Your task to perform on an android device: toggle airplane mode Image 0: 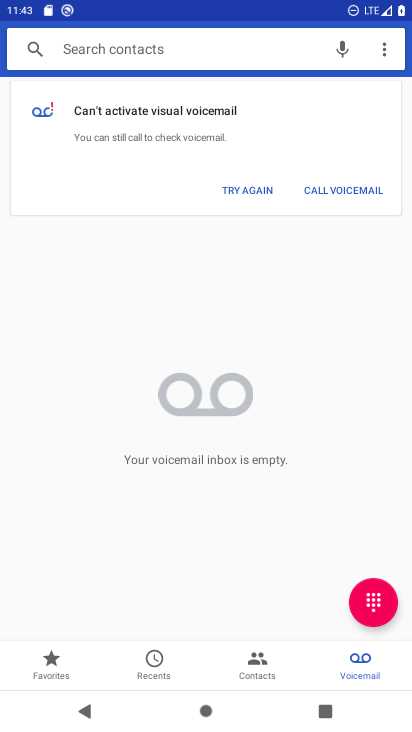
Step 0: press home button
Your task to perform on an android device: toggle airplane mode Image 1: 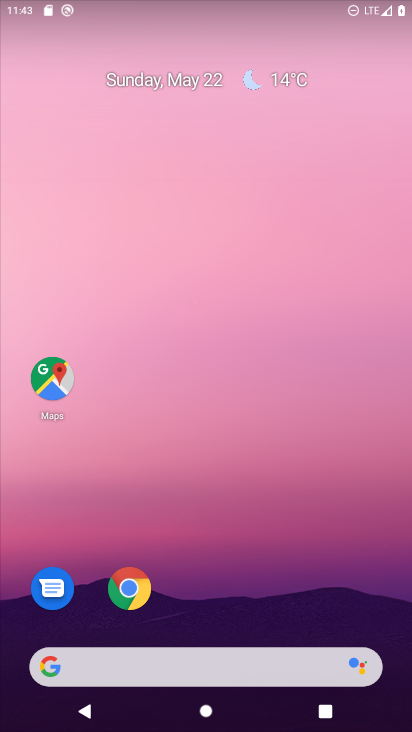
Step 1: drag from (215, 620) to (235, 262)
Your task to perform on an android device: toggle airplane mode Image 2: 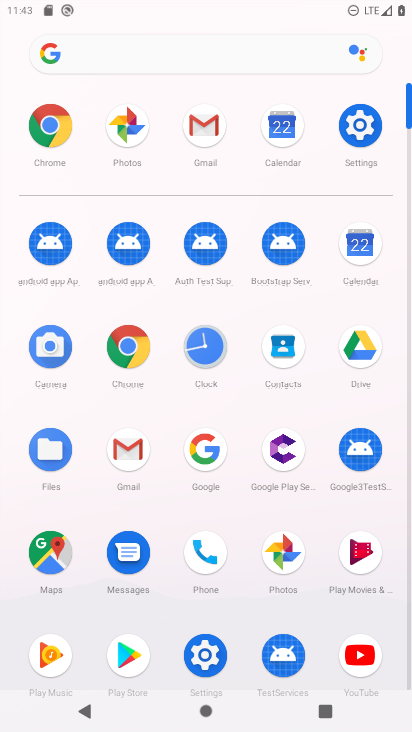
Step 2: click (363, 140)
Your task to perform on an android device: toggle airplane mode Image 3: 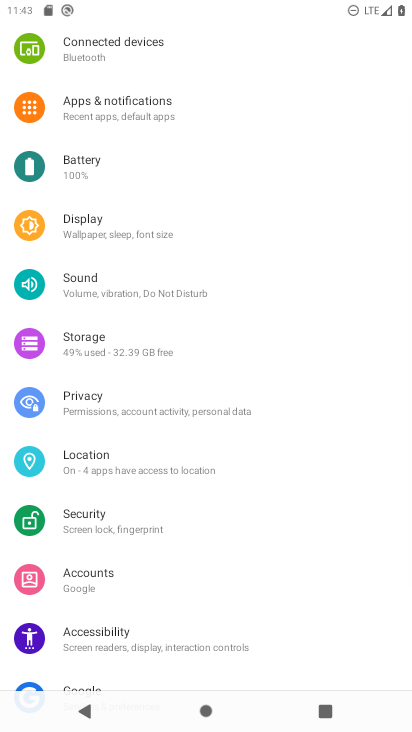
Step 3: drag from (149, 90) to (167, 589)
Your task to perform on an android device: toggle airplane mode Image 4: 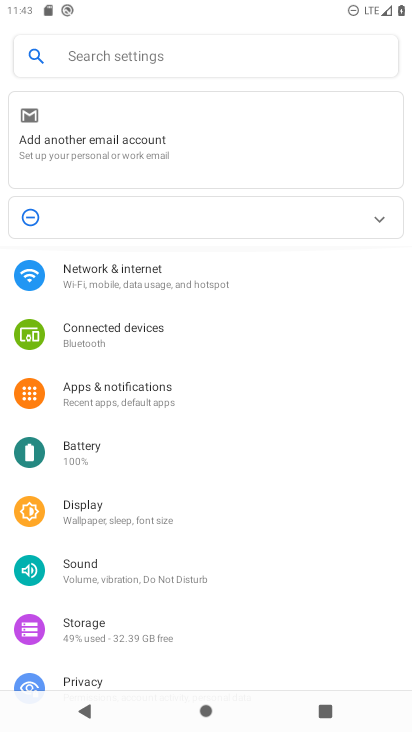
Step 4: click (165, 287)
Your task to perform on an android device: toggle airplane mode Image 5: 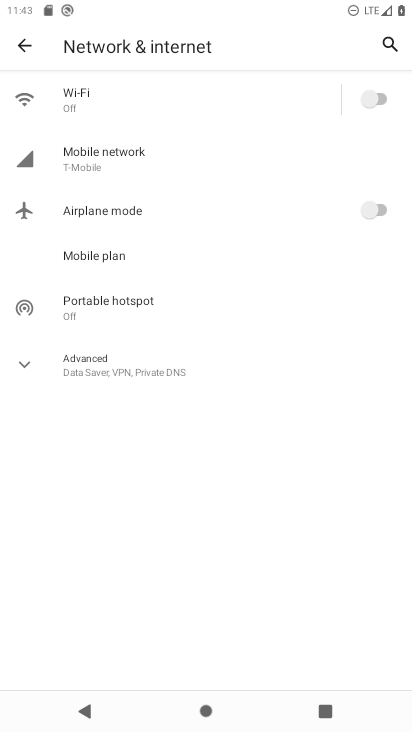
Step 5: click (380, 209)
Your task to perform on an android device: toggle airplane mode Image 6: 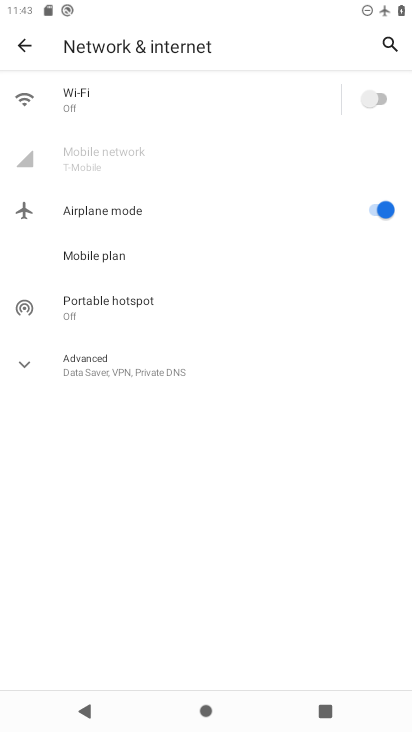
Step 6: task complete